Your task to perform on an android device: set the stopwatch Image 0: 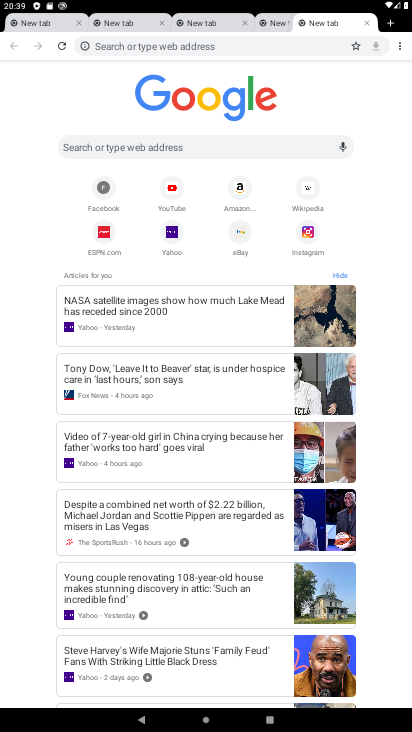
Step 0: press home button
Your task to perform on an android device: set the stopwatch Image 1: 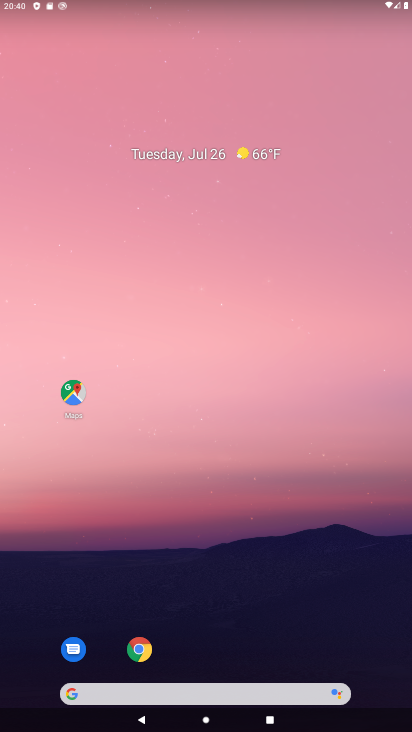
Step 1: drag from (170, 664) to (170, 99)
Your task to perform on an android device: set the stopwatch Image 2: 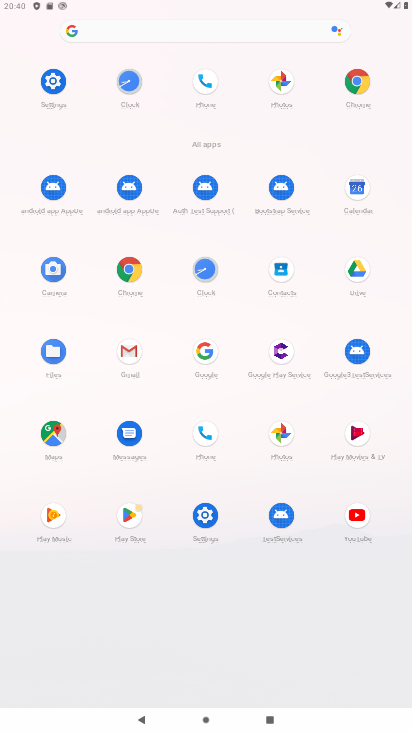
Step 2: click (204, 272)
Your task to perform on an android device: set the stopwatch Image 3: 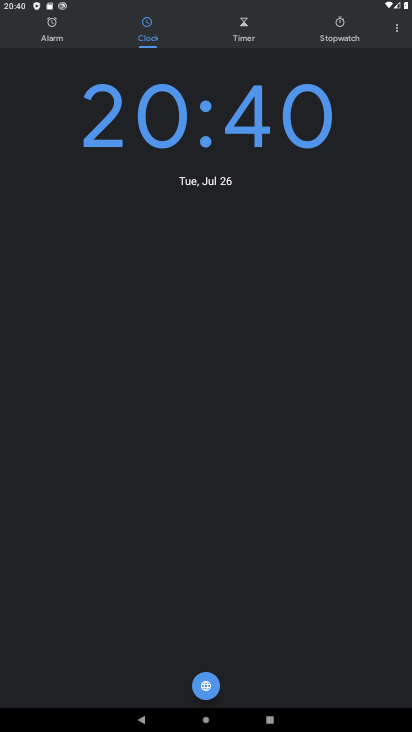
Step 3: click (342, 30)
Your task to perform on an android device: set the stopwatch Image 4: 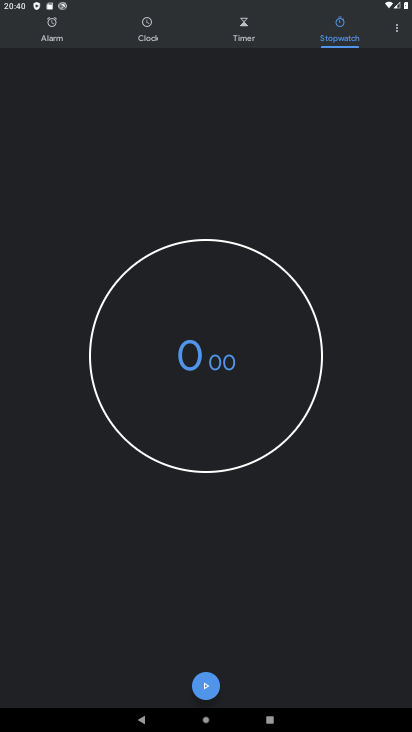
Step 4: task complete